Your task to perform on an android device: Go to Android settings Image 0: 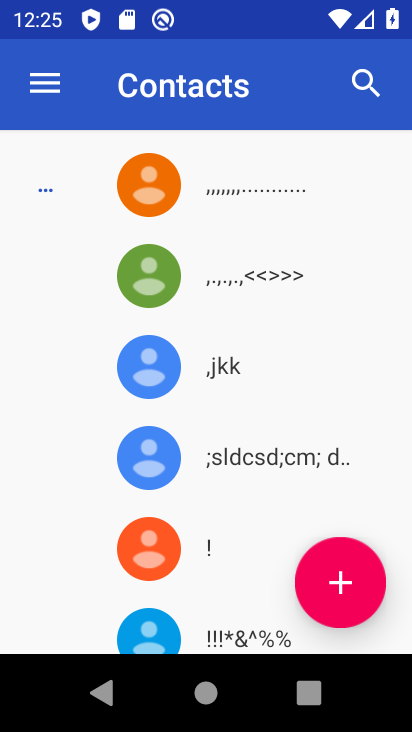
Step 0: press back button
Your task to perform on an android device: Go to Android settings Image 1: 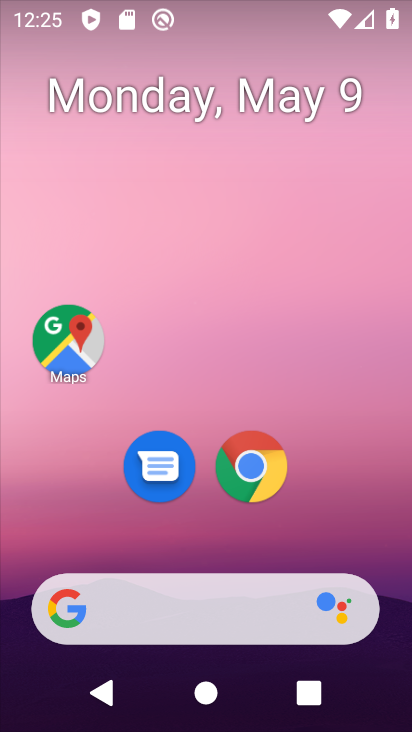
Step 1: drag from (187, 557) to (262, 286)
Your task to perform on an android device: Go to Android settings Image 2: 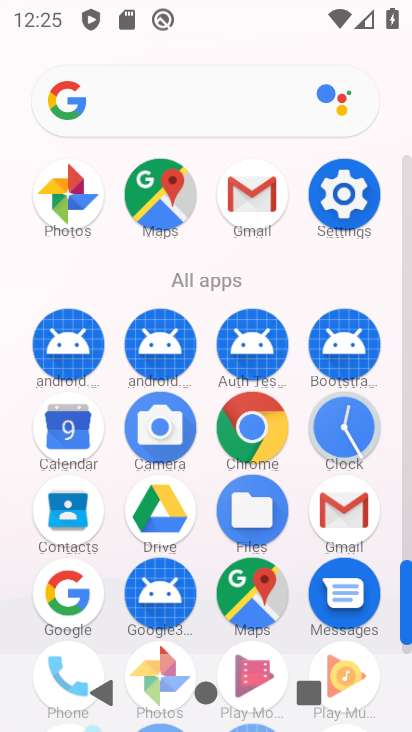
Step 2: click (361, 191)
Your task to perform on an android device: Go to Android settings Image 3: 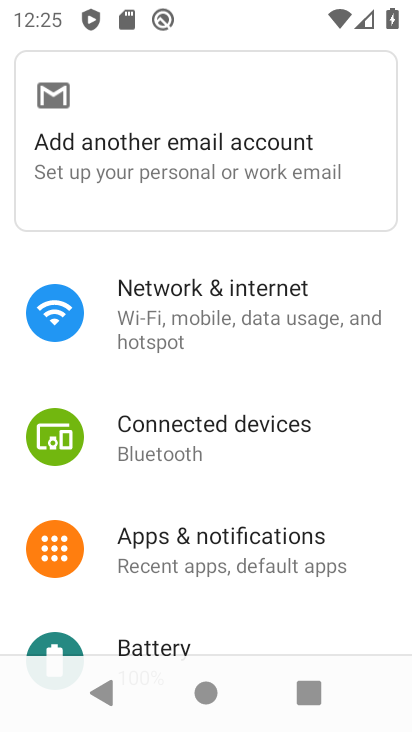
Step 3: task complete